Your task to perform on an android device: Open Wikipedia Image 0: 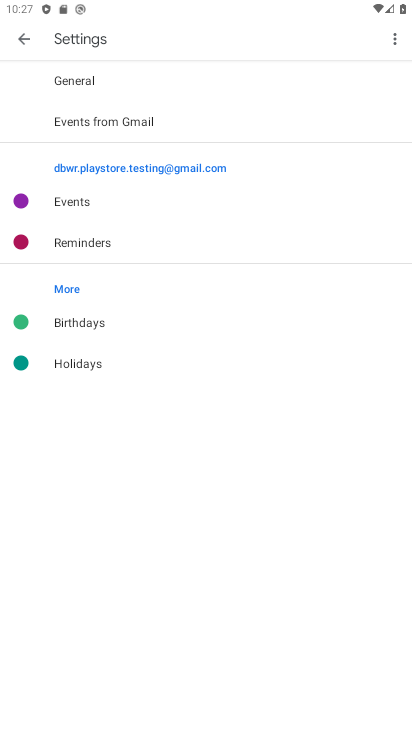
Step 0: press home button
Your task to perform on an android device: Open Wikipedia Image 1: 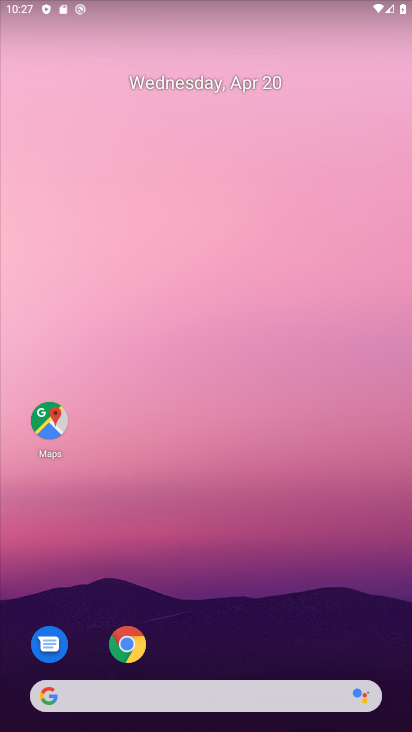
Step 1: click (129, 645)
Your task to perform on an android device: Open Wikipedia Image 2: 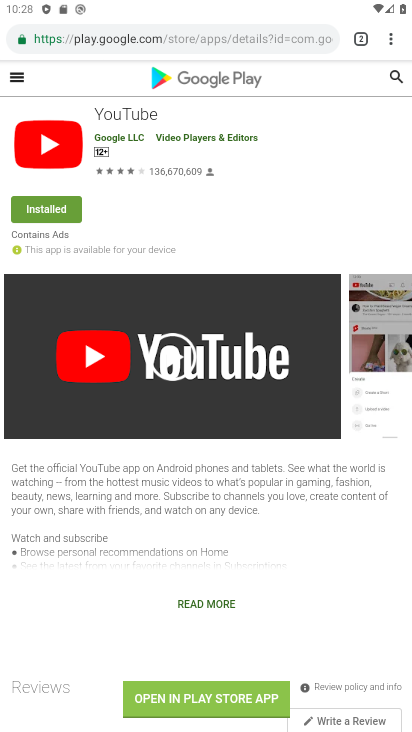
Step 2: drag from (163, 32) to (154, 132)
Your task to perform on an android device: Open Wikipedia Image 3: 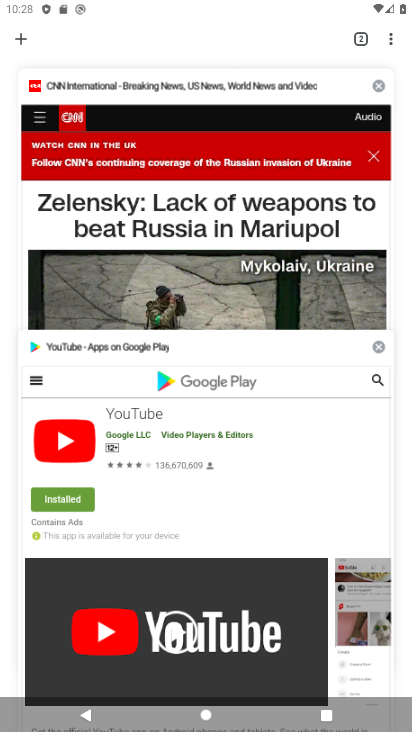
Step 3: click (20, 40)
Your task to perform on an android device: Open Wikipedia Image 4: 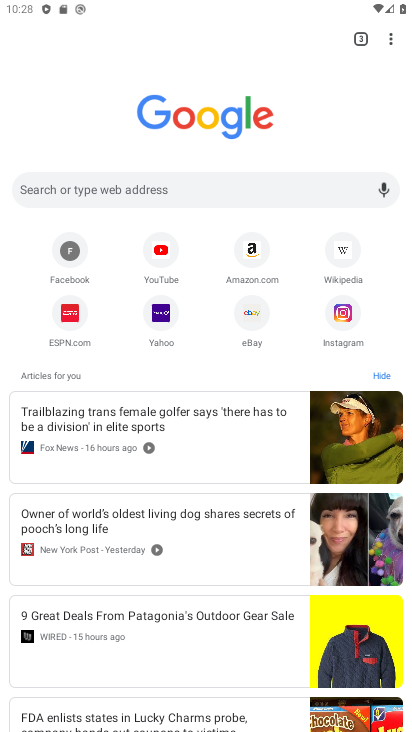
Step 4: click (343, 261)
Your task to perform on an android device: Open Wikipedia Image 5: 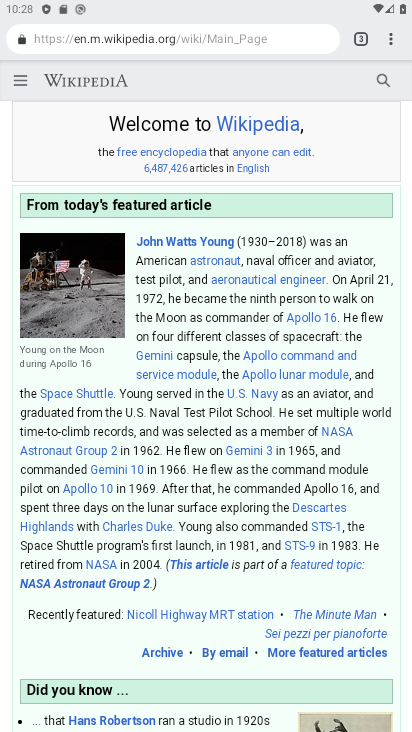
Step 5: task complete